Your task to perform on an android device: Go to Google Image 0: 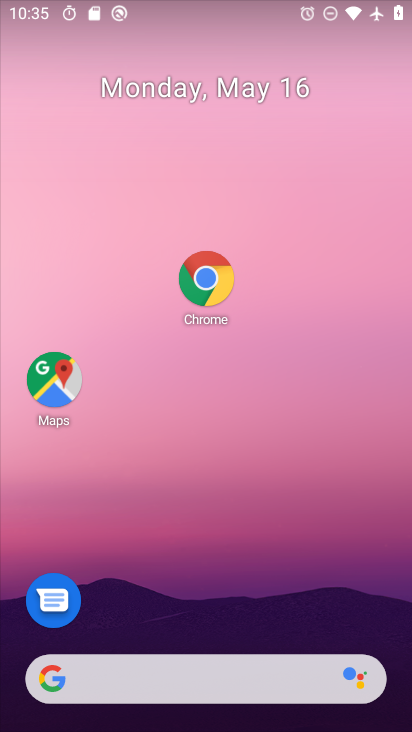
Step 0: drag from (182, 680) to (309, 137)
Your task to perform on an android device: Go to Google Image 1: 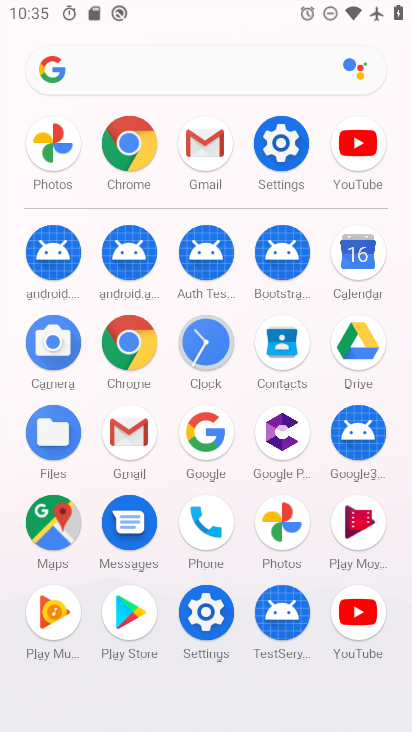
Step 1: click (194, 425)
Your task to perform on an android device: Go to Google Image 2: 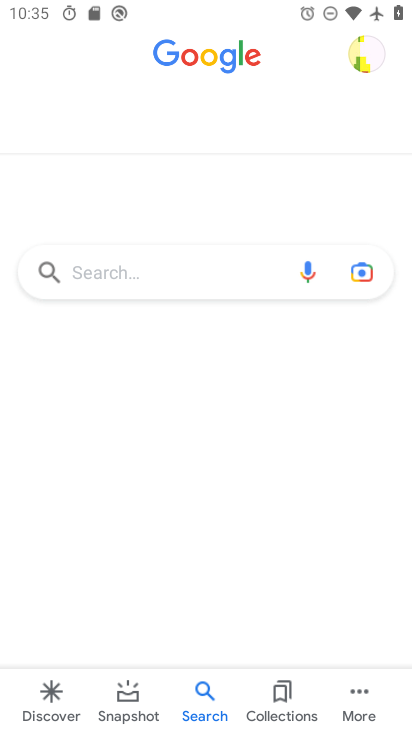
Step 2: click (81, 717)
Your task to perform on an android device: Go to Google Image 3: 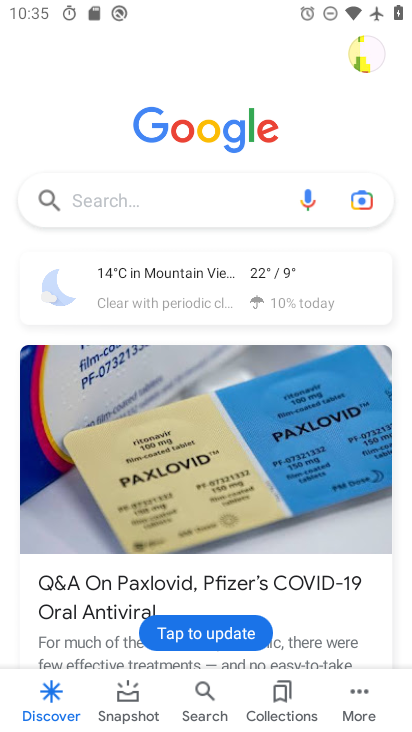
Step 3: task complete